Your task to perform on an android device: turn on wifi Image 0: 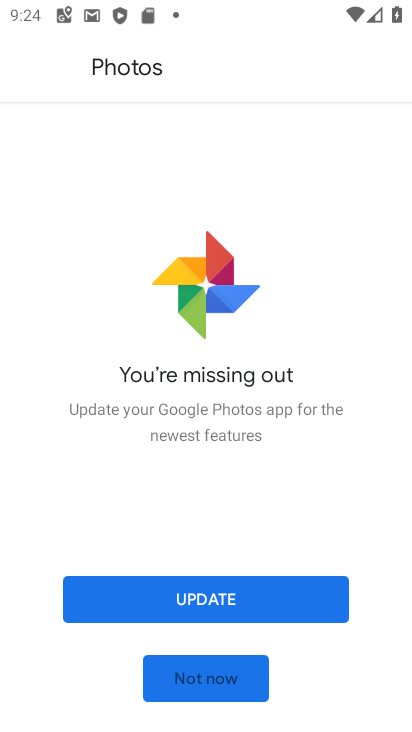
Step 0: press home button
Your task to perform on an android device: turn on wifi Image 1: 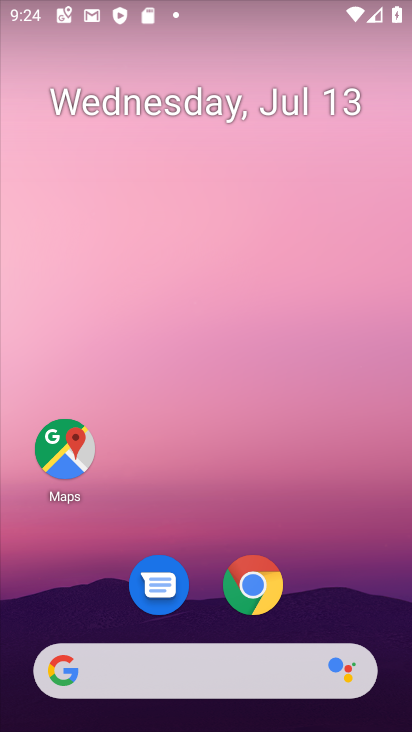
Step 1: drag from (324, 595) to (365, 59)
Your task to perform on an android device: turn on wifi Image 2: 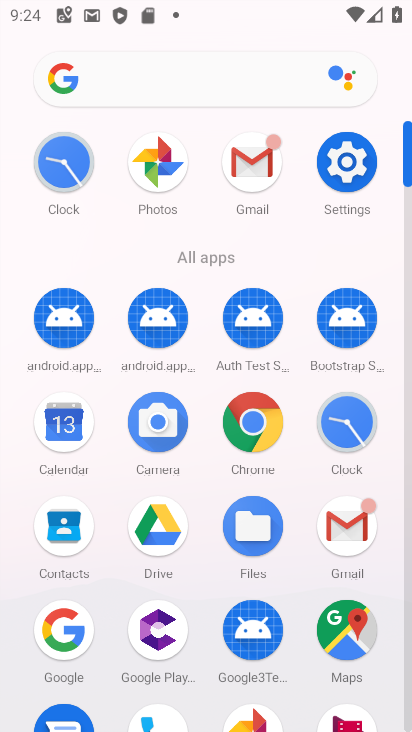
Step 2: click (360, 164)
Your task to perform on an android device: turn on wifi Image 3: 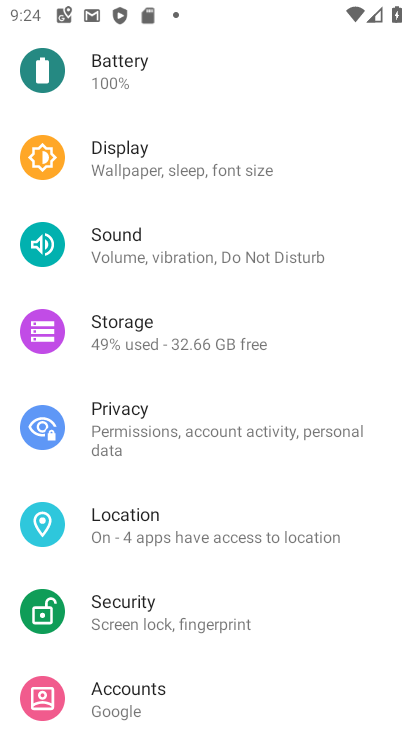
Step 3: drag from (218, 122) to (258, 717)
Your task to perform on an android device: turn on wifi Image 4: 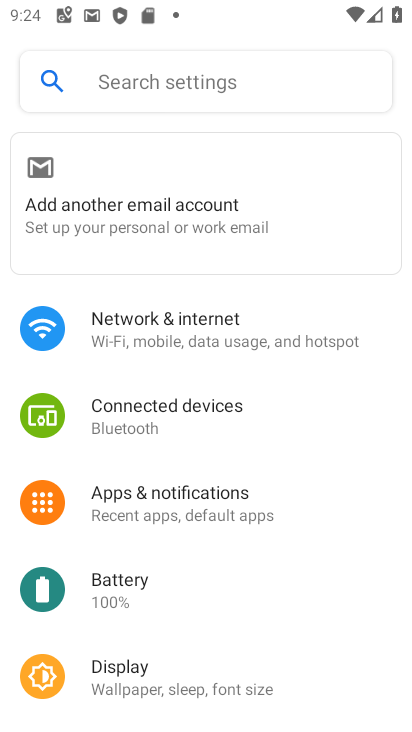
Step 4: click (253, 326)
Your task to perform on an android device: turn on wifi Image 5: 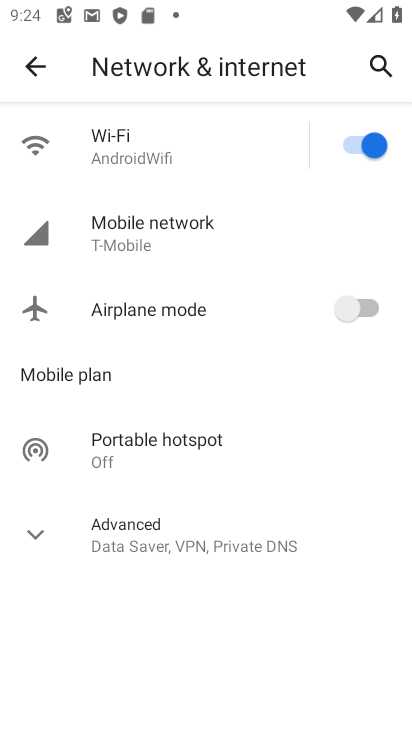
Step 5: task complete